Your task to perform on an android device: Open notification settings Image 0: 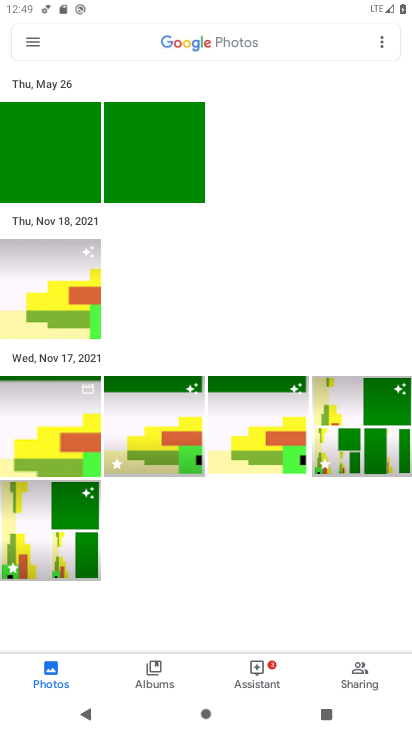
Step 0: press home button
Your task to perform on an android device: Open notification settings Image 1: 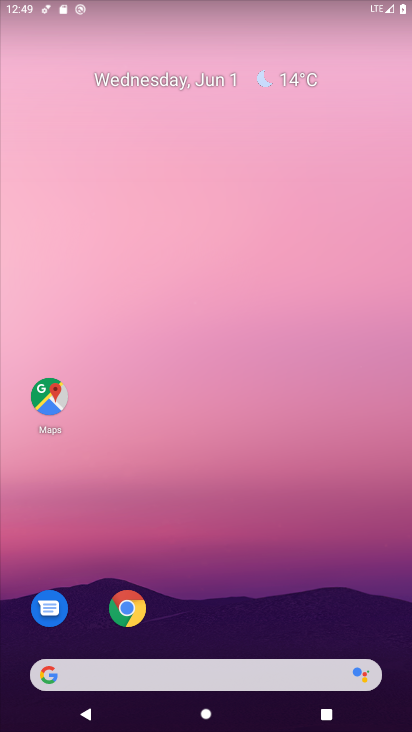
Step 1: drag from (215, 639) to (304, 47)
Your task to perform on an android device: Open notification settings Image 2: 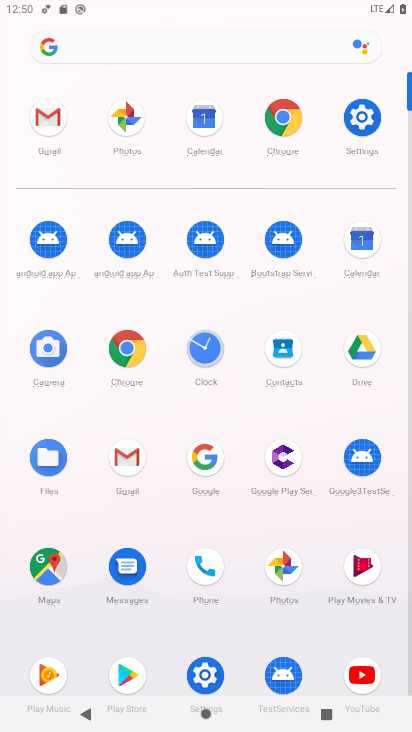
Step 2: click (376, 140)
Your task to perform on an android device: Open notification settings Image 3: 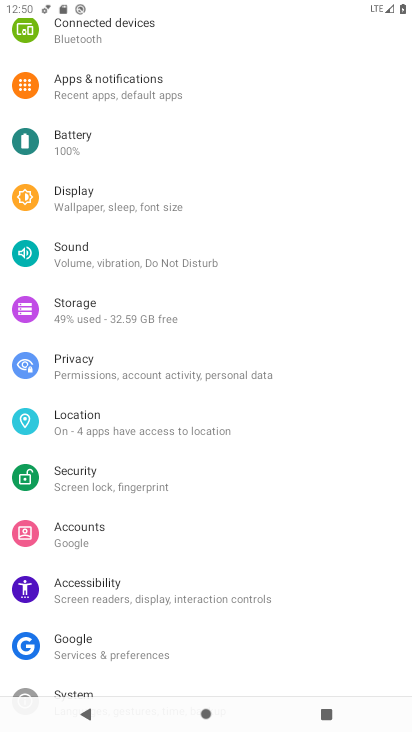
Step 3: click (147, 89)
Your task to perform on an android device: Open notification settings Image 4: 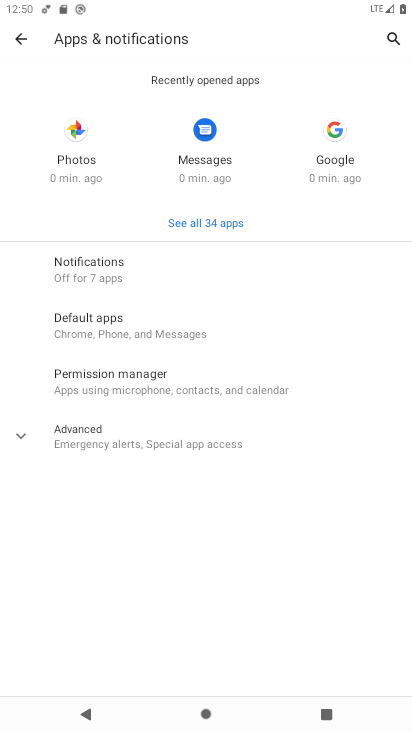
Step 4: click (114, 270)
Your task to perform on an android device: Open notification settings Image 5: 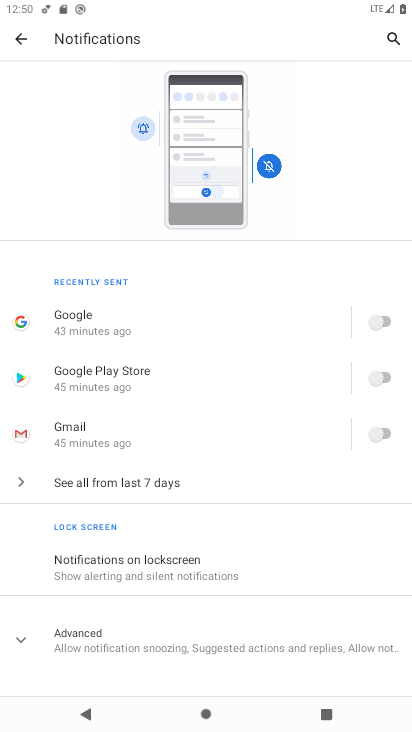
Step 5: task complete